Your task to perform on an android device: Search for Italian restaurants on Maps Image 0: 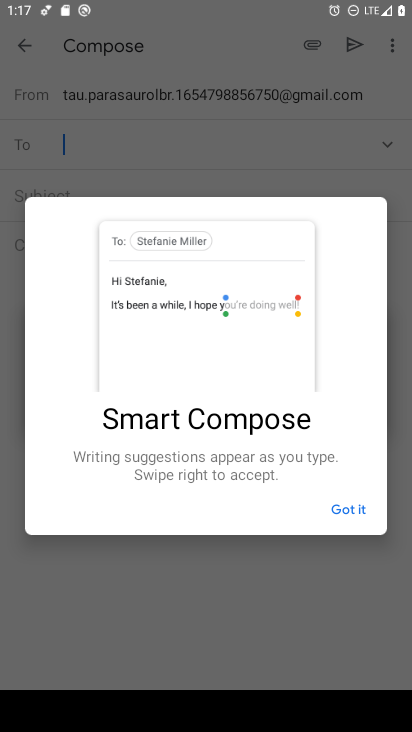
Step 0: press home button
Your task to perform on an android device: Search for Italian restaurants on Maps Image 1: 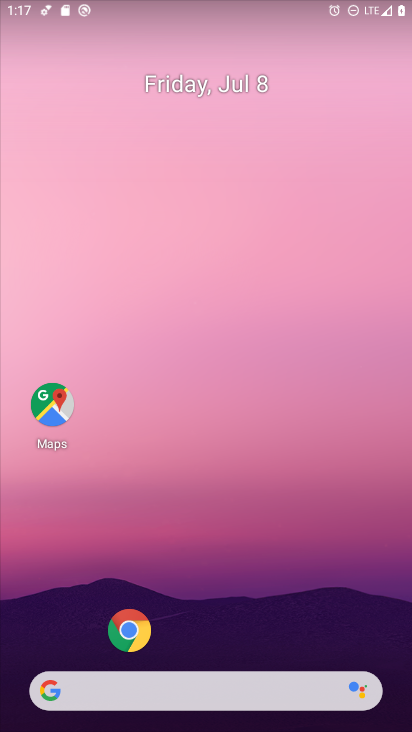
Step 1: drag from (347, 619) to (343, 0)
Your task to perform on an android device: Search for Italian restaurants on Maps Image 2: 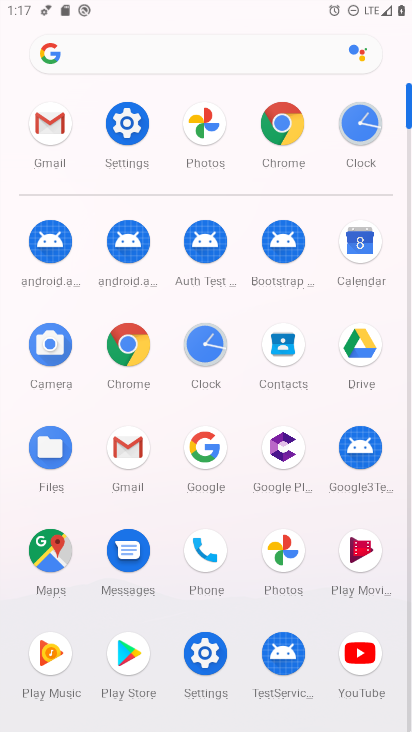
Step 2: click (35, 553)
Your task to perform on an android device: Search for Italian restaurants on Maps Image 3: 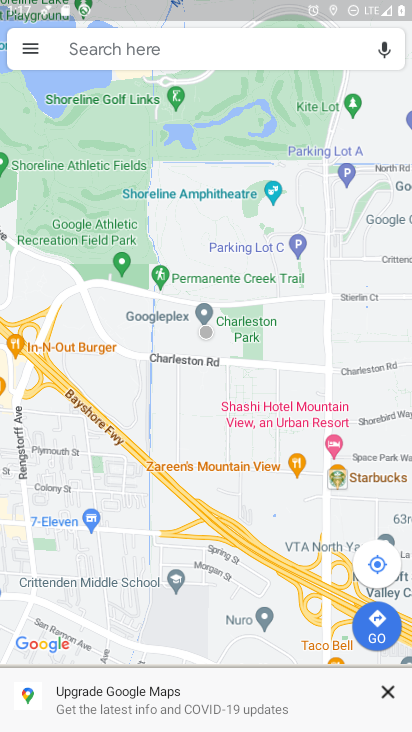
Step 3: click (312, 36)
Your task to perform on an android device: Search for Italian restaurants on Maps Image 4: 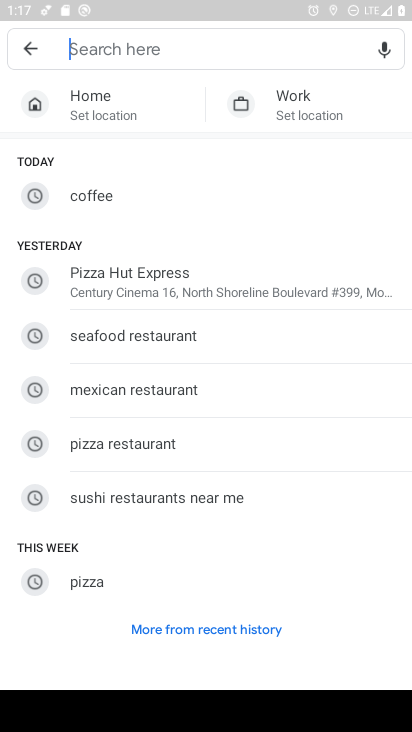
Step 4: type "italian restaurant"
Your task to perform on an android device: Search for Italian restaurants on Maps Image 5: 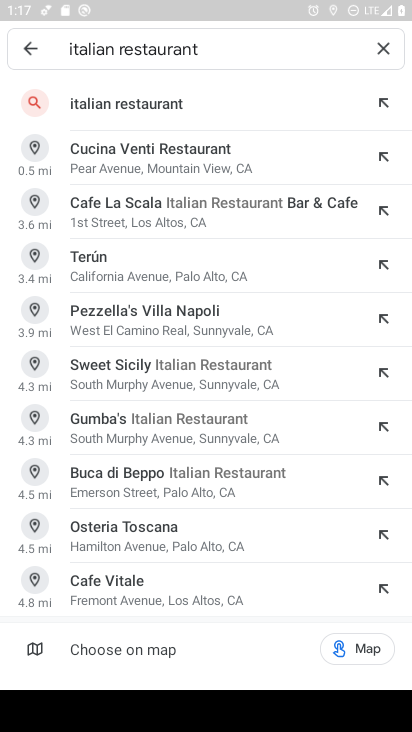
Step 5: click (209, 100)
Your task to perform on an android device: Search for Italian restaurants on Maps Image 6: 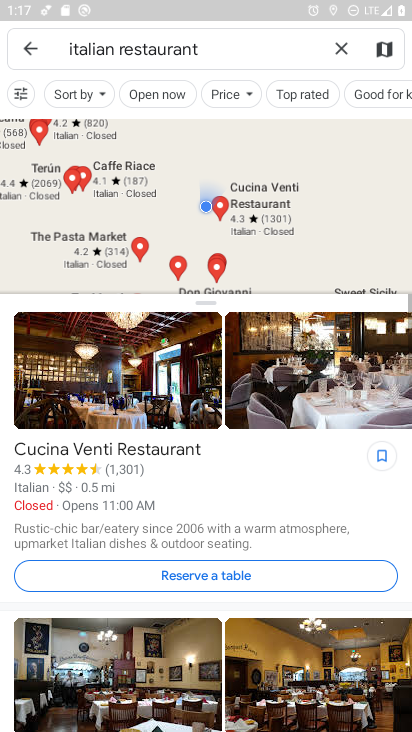
Step 6: task complete